Your task to perform on an android device: Open network settings Image 0: 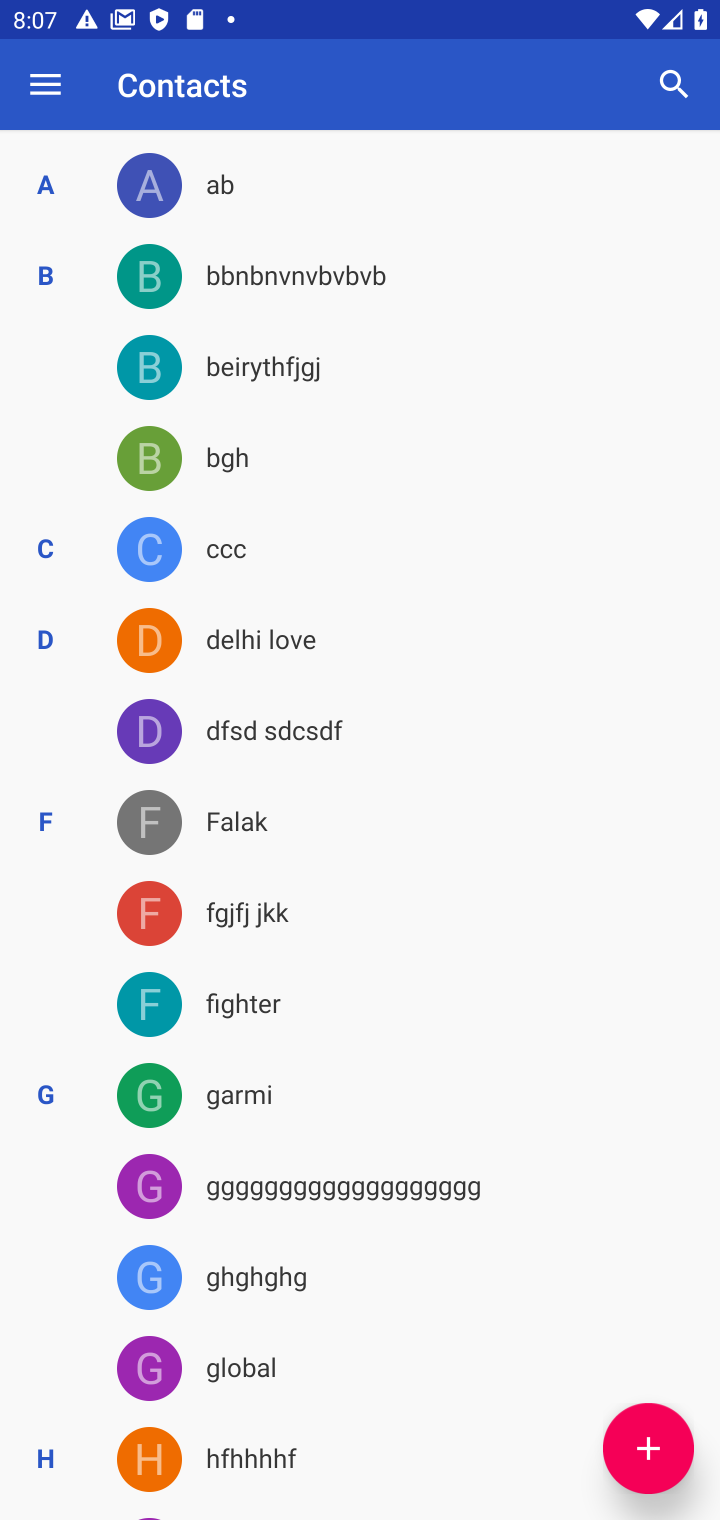
Step 0: press home button
Your task to perform on an android device: Open network settings Image 1: 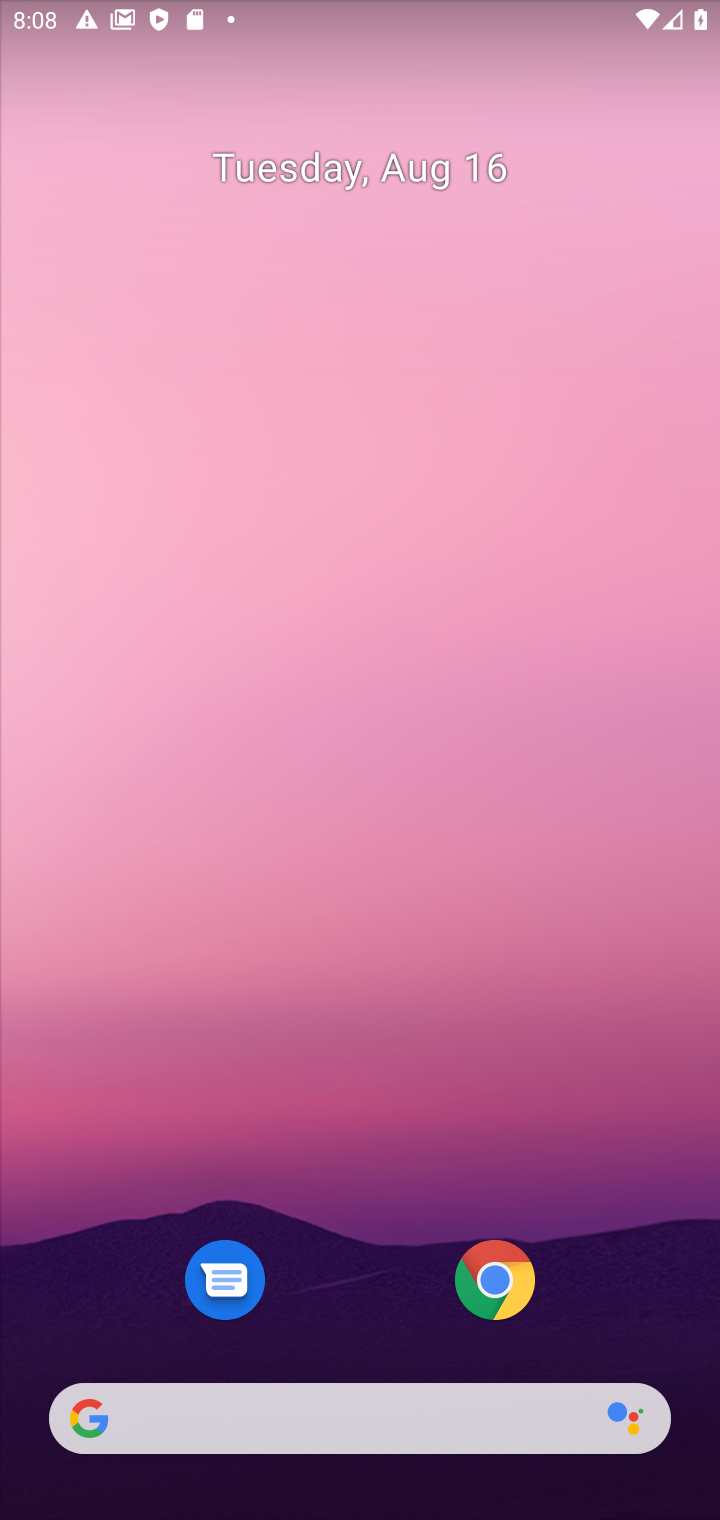
Step 1: drag from (369, 1345) to (391, 610)
Your task to perform on an android device: Open network settings Image 2: 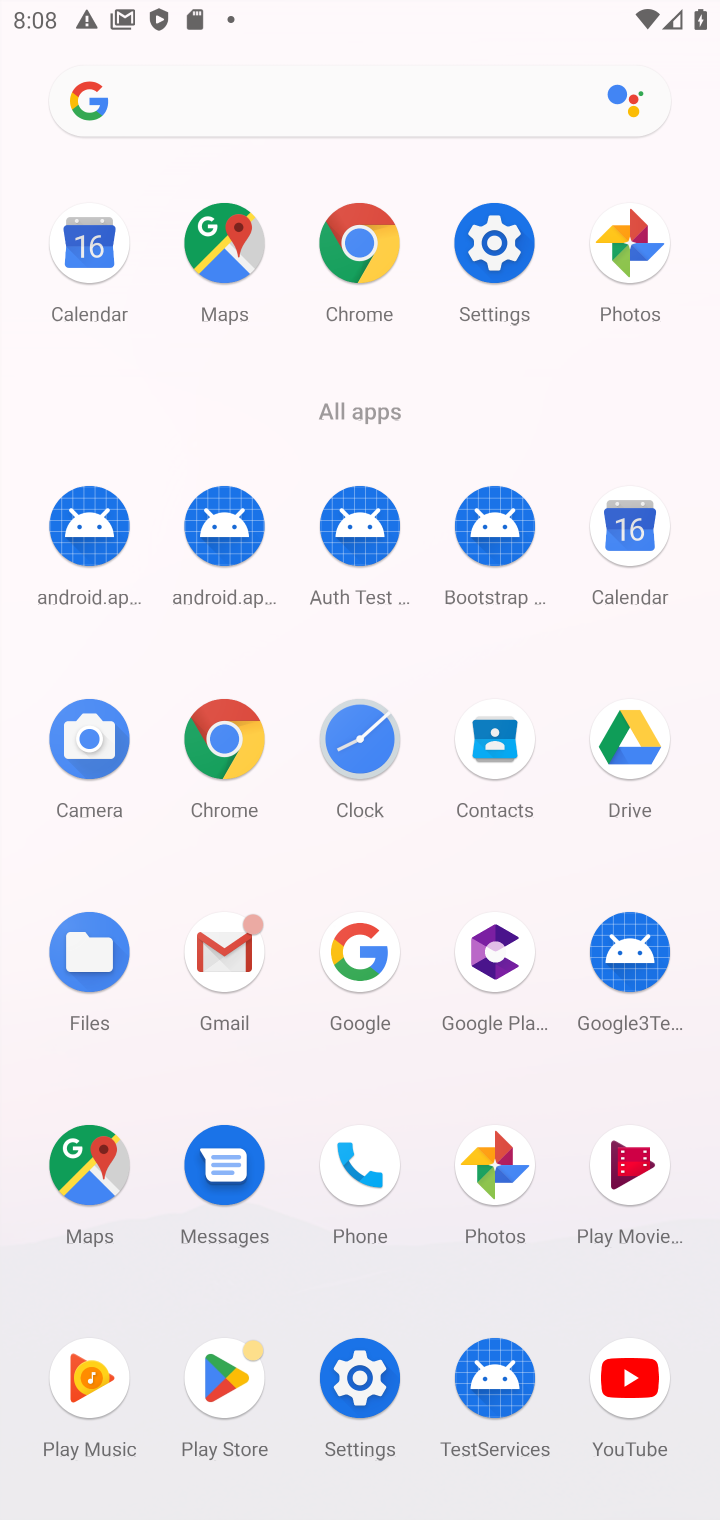
Step 2: click (349, 1375)
Your task to perform on an android device: Open network settings Image 3: 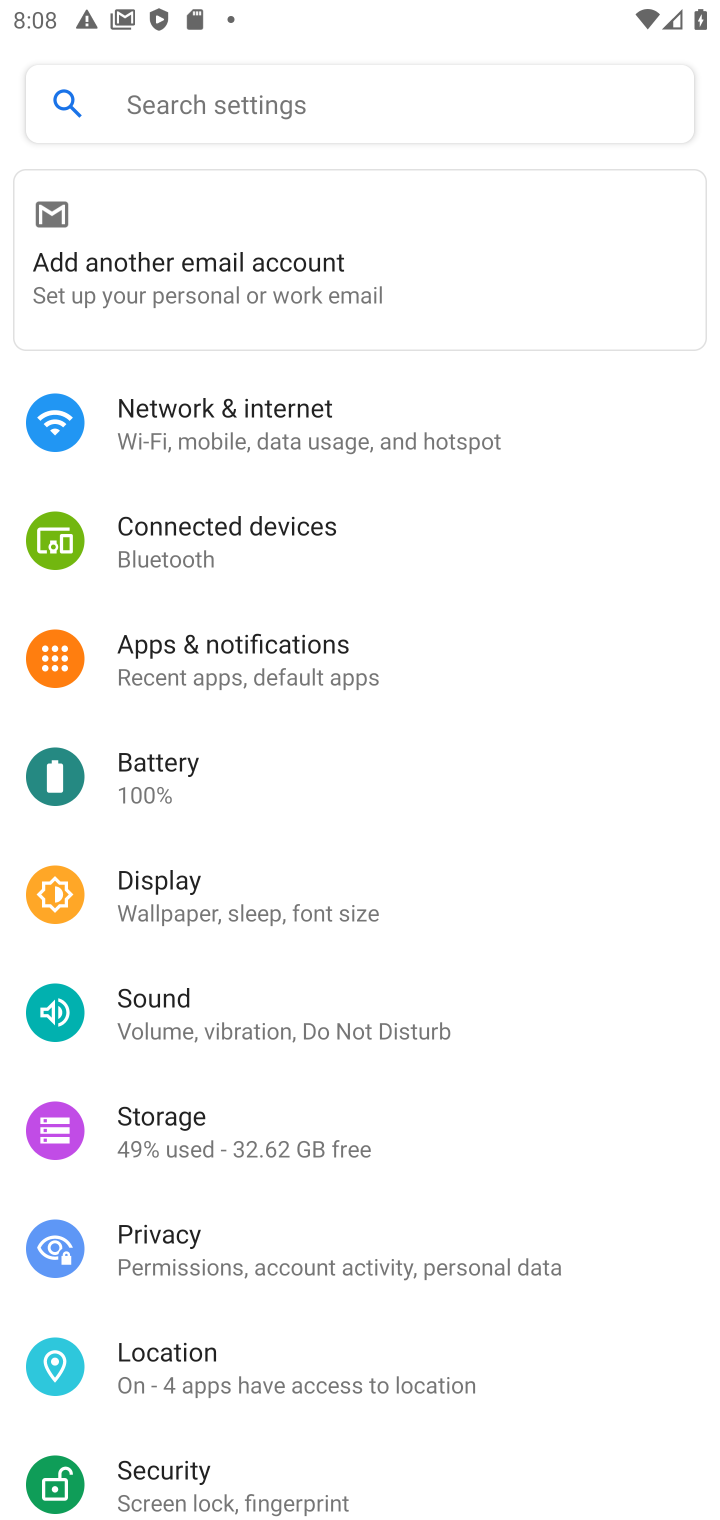
Step 3: click (239, 444)
Your task to perform on an android device: Open network settings Image 4: 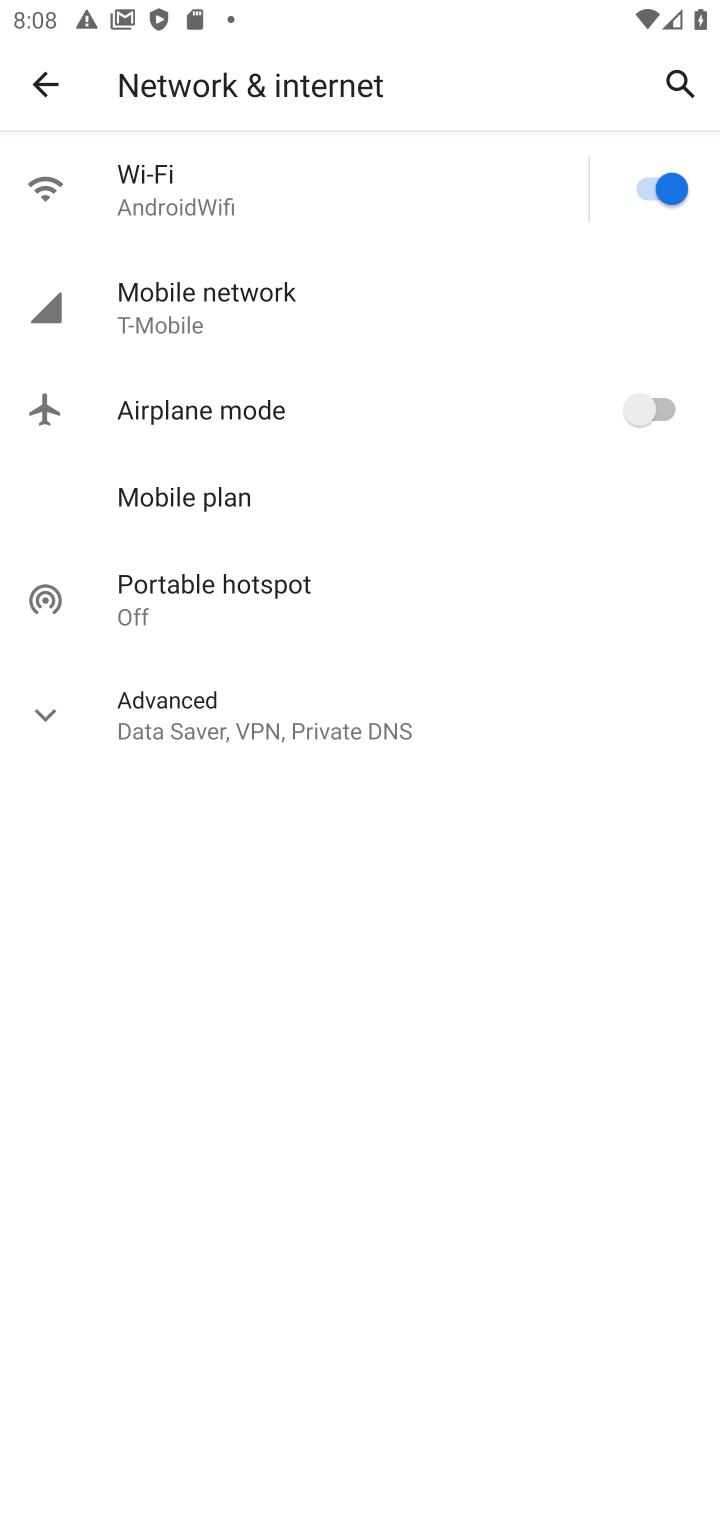
Step 4: task complete